Your task to perform on an android device: Open the map Image 0: 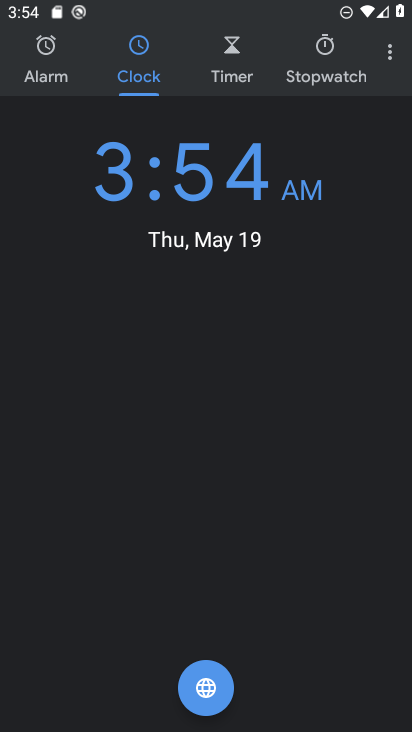
Step 0: press home button
Your task to perform on an android device: Open the map Image 1: 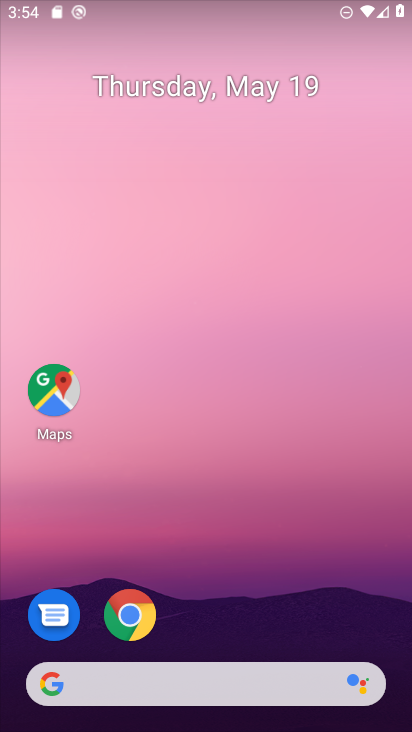
Step 1: click (46, 379)
Your task to perform on an android device: Open the map Image 2: 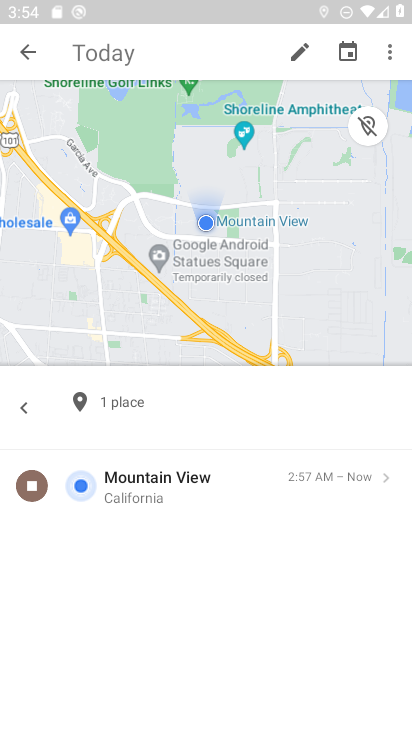
Step 2: task complete